Your task to perform on an android device: Open location settings Image 0: 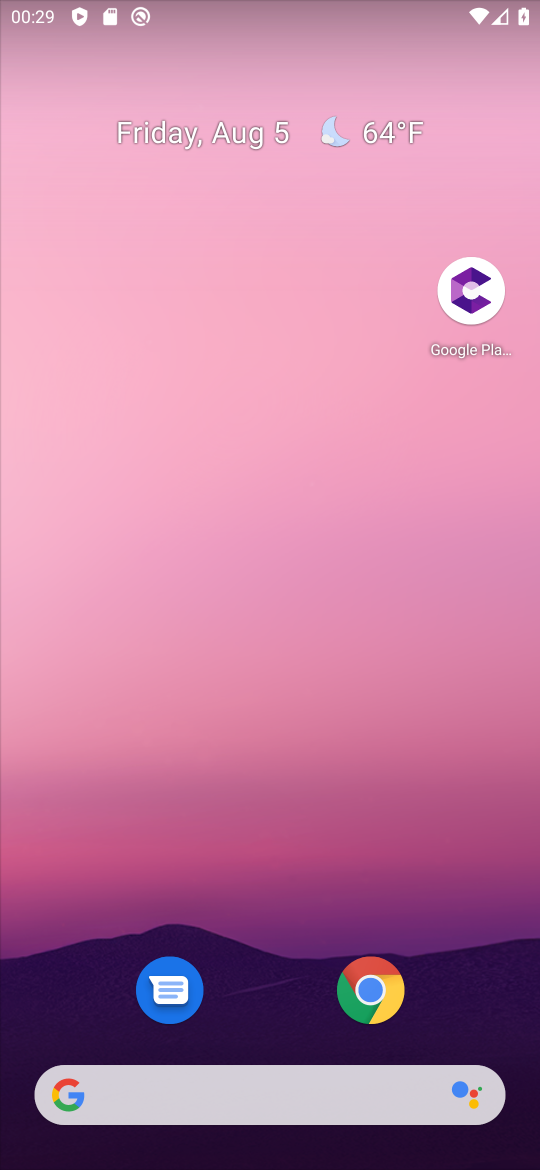
Step 0: drag from (224, 750) to (175, 196)
Your task to perform on an android device: Open location settings Image 1: 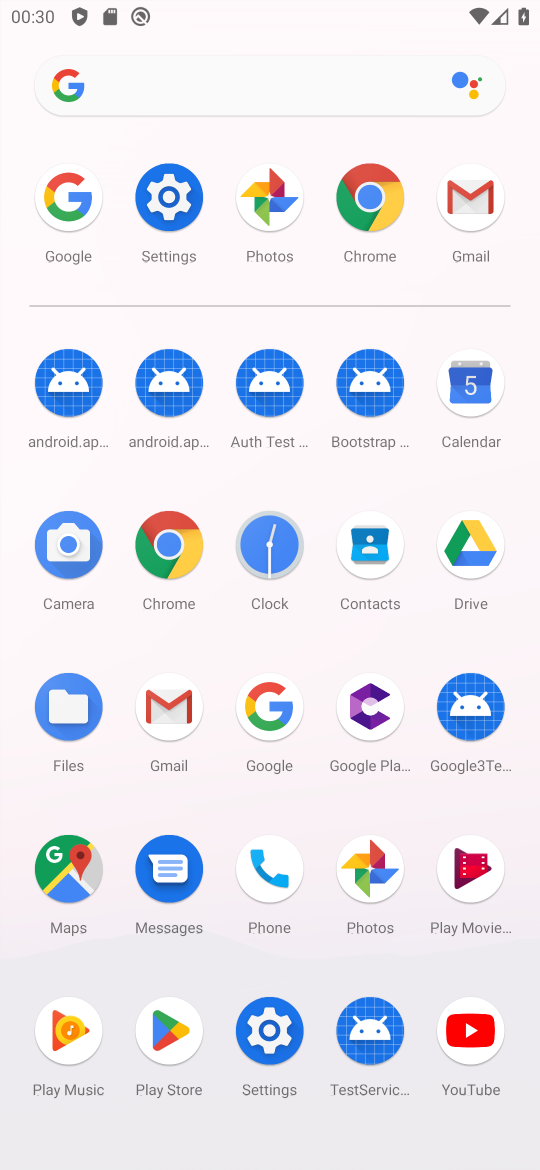
Step 1: click (174, 174)
Your task to perform on an android device: Open location settings Image 2: 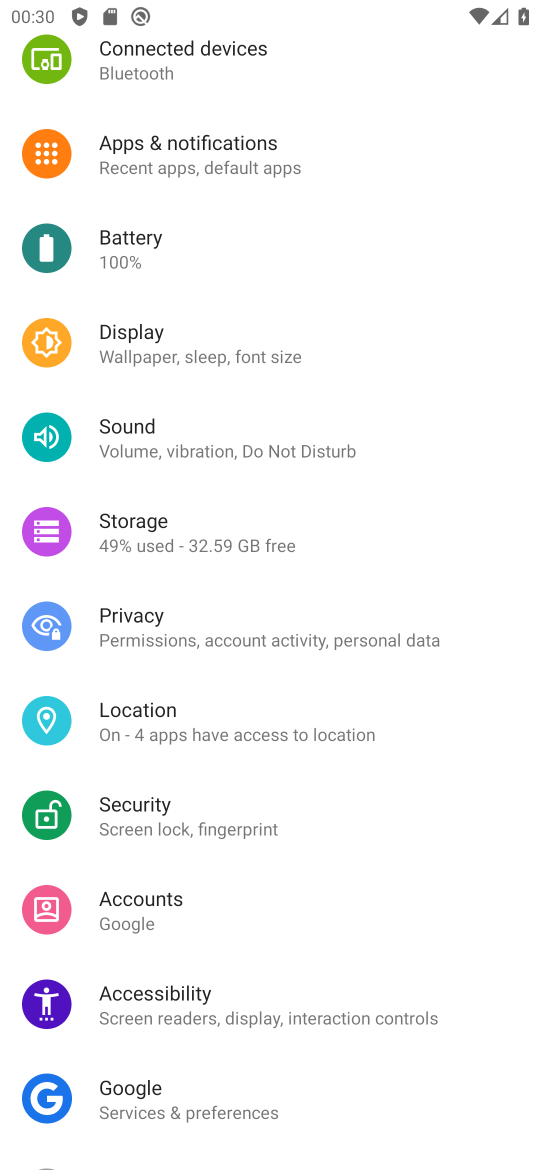
Step 2: click (245, 737)
Your task to perform on an android device: Open location settings Image 3: 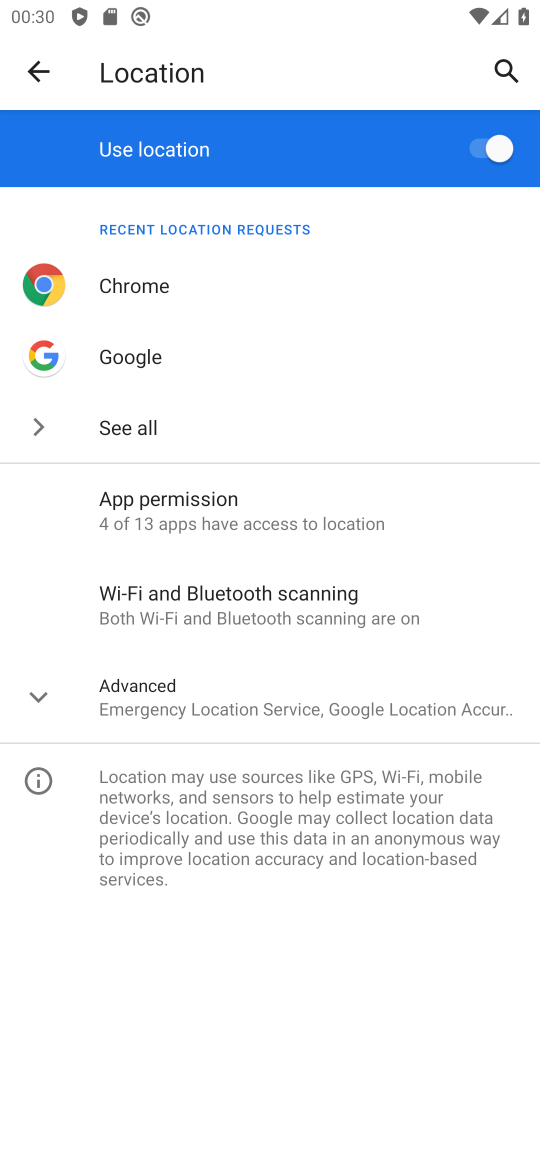
Step 3: task complete